Your task to perform on an android device: Clear the shopping cart on bestbuy. Search for sony triple a on bestbuy, select the first entry, add it to the cart, then select checkout. Image 0: 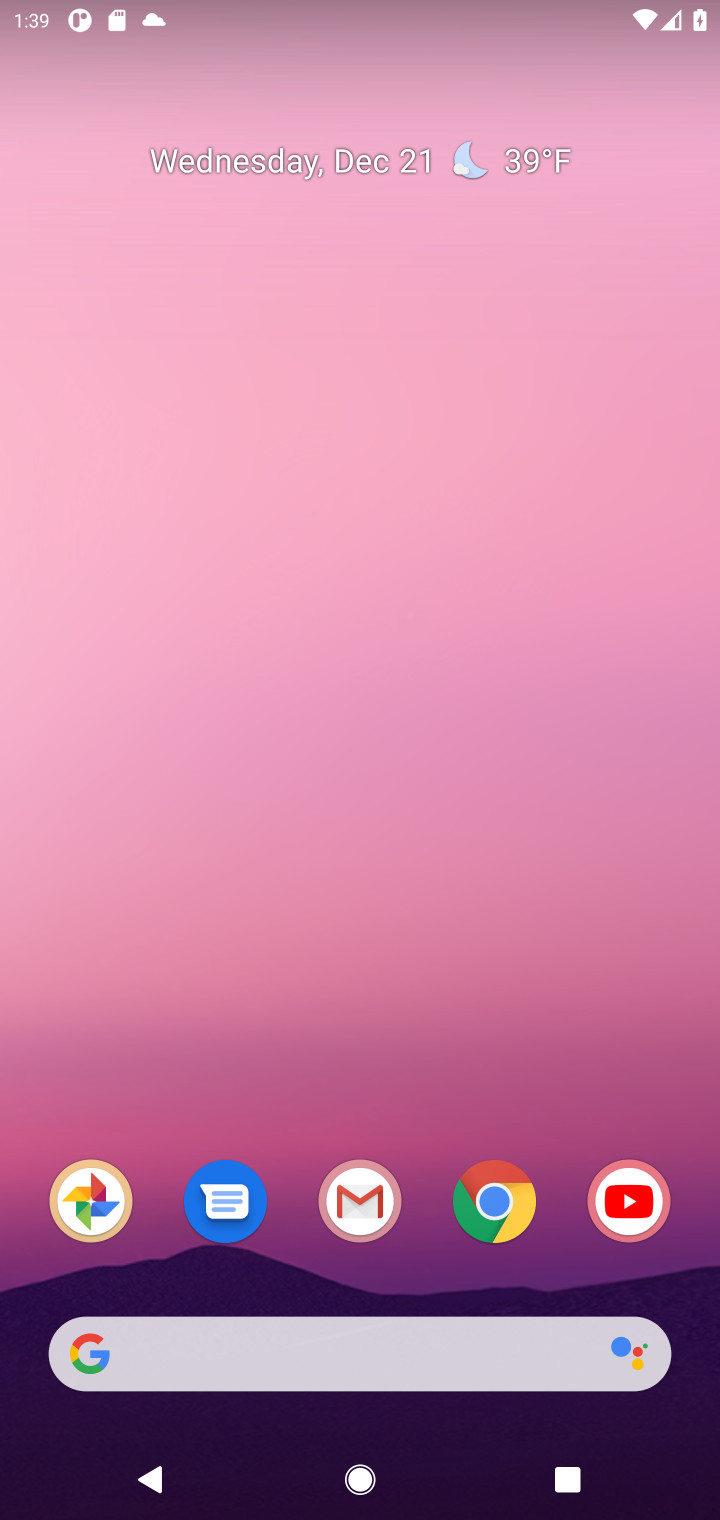
Step 0: click (507, 1216)
Your task to perform on an android device: Clear the shopping cart on bestbuy. Search for sony triple a on bestbuy, select the first entry, add it to the cart, then select checkout. Image 1: 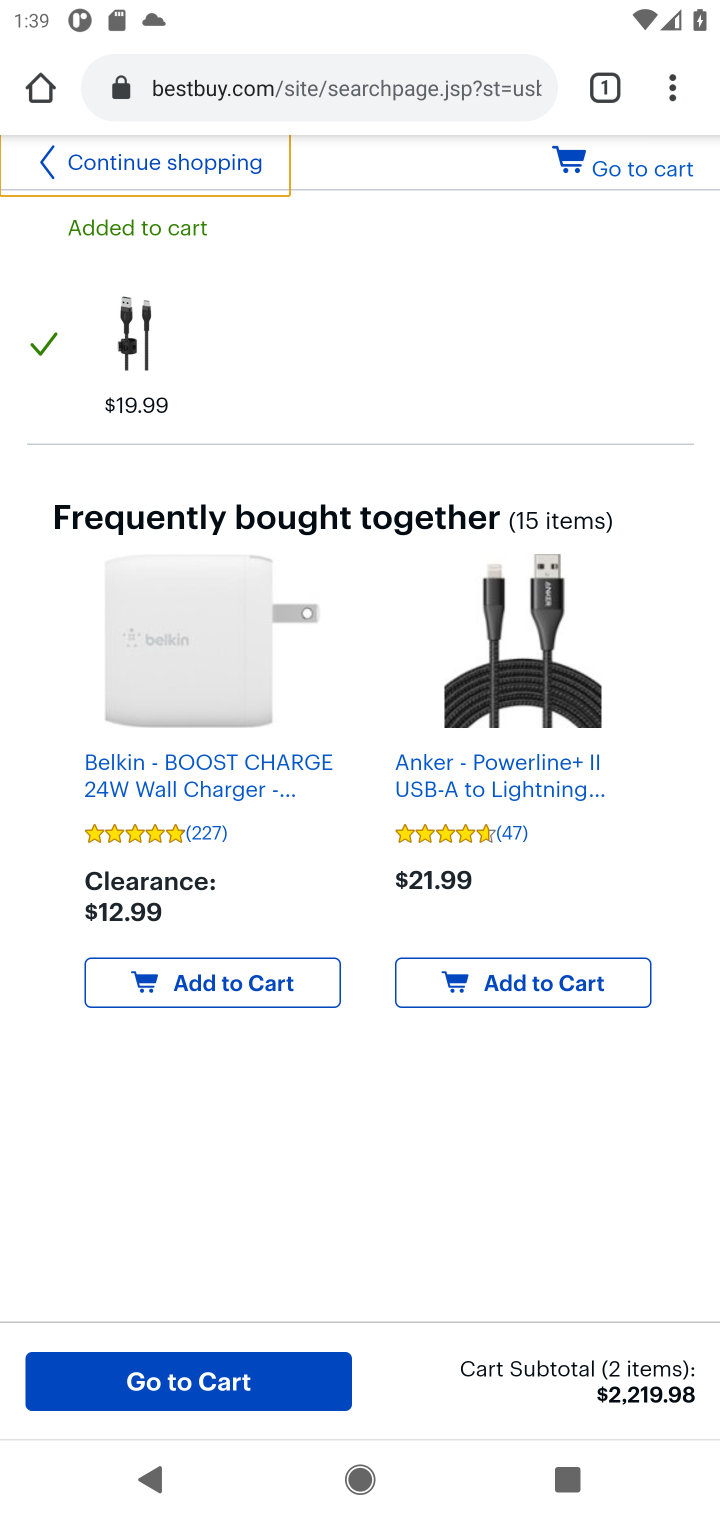
Step 1: press back button
Your task to perform on an android device: Clear the shopping cart on bestbuy. Search for sony triple a on bestbuy, select the first entry, add it to the cart, then select checkout. Image 2: 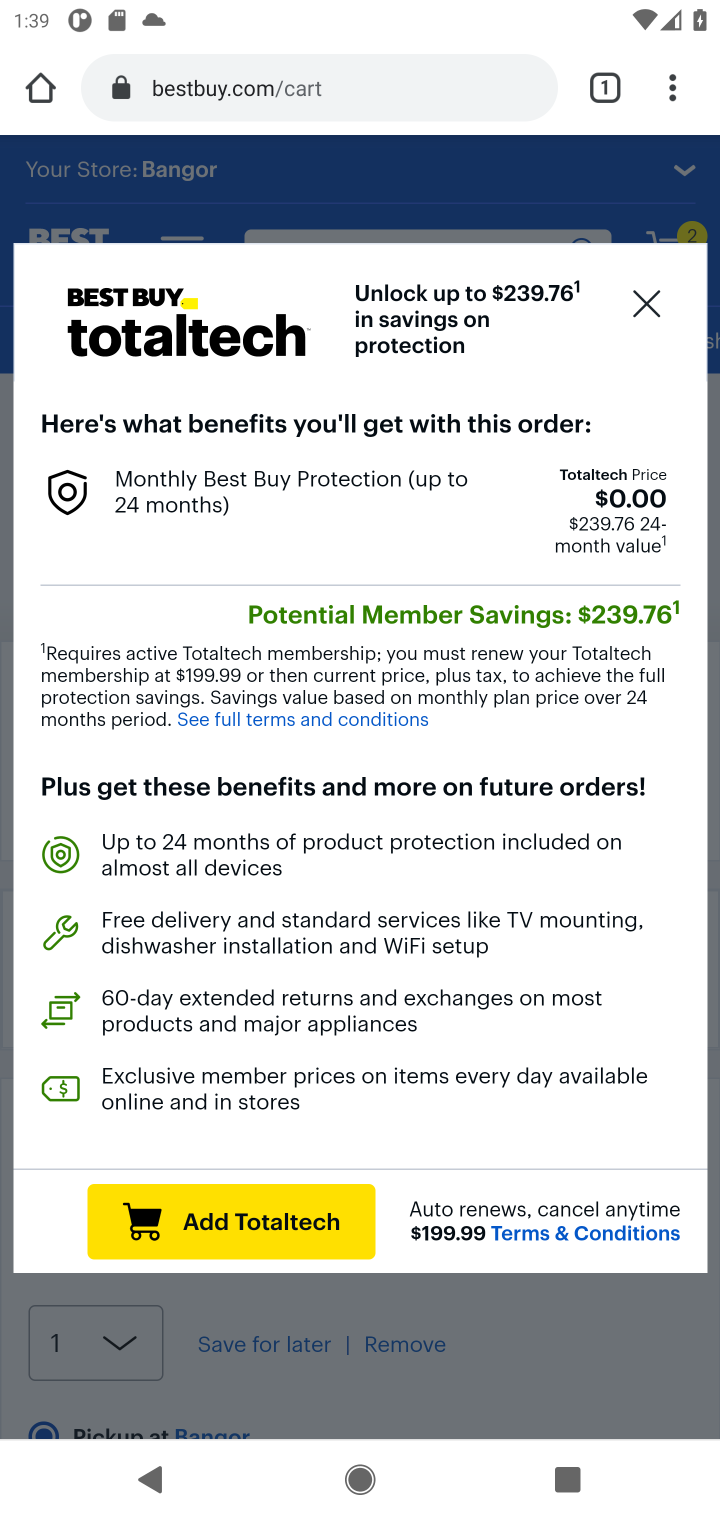
Step 2: click (645, 307)
Your task to perform on an android device: Clear the shopping cart on bestbuy. Search for sony triple a on bestbuy, select the first entry, add it to the cart, then select checkout. Image 3: 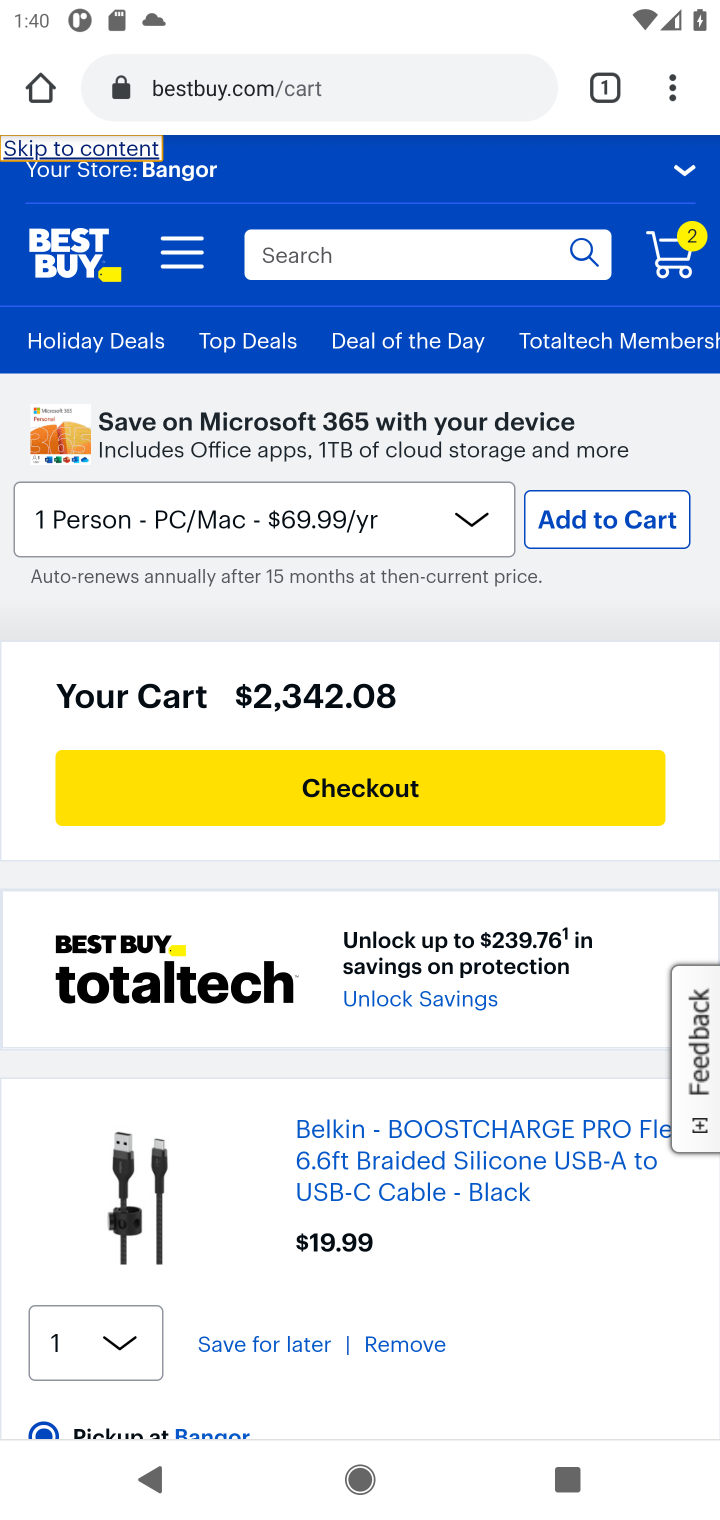
Step 3: drag from (263, 917) to (279, 531)
Your task to perform on an android device: Clear the shopping cart on bestbuy. Search for sony triple a on bestbuy, select the first entry, add it to the cart, then select checkout. Image 4: 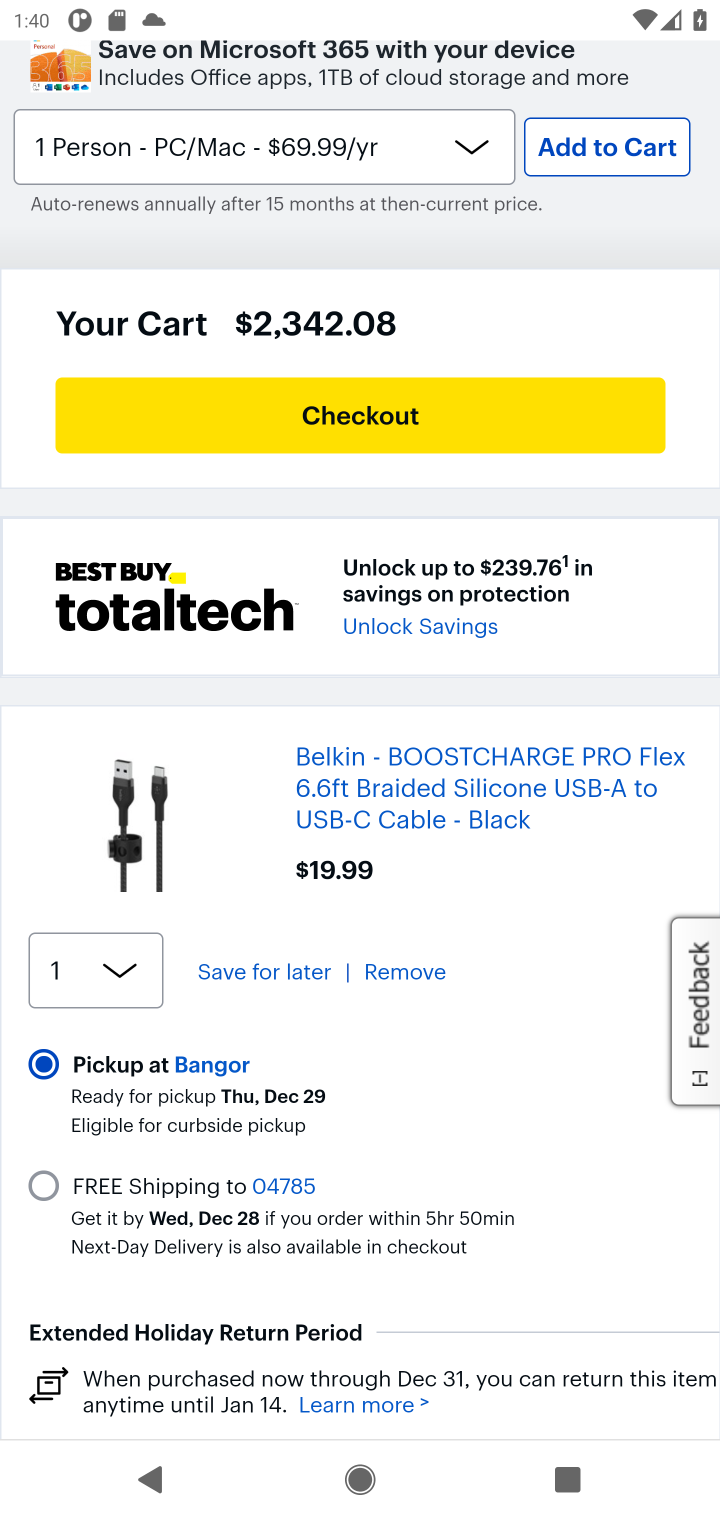
Step 4: click (392, 975)
Your task to perform on an android device: Clear the shopping cart on bestbuy. Search for sony triple a on bestbuy, select the first entry, add it to the cart, then select checkout. Image 5: 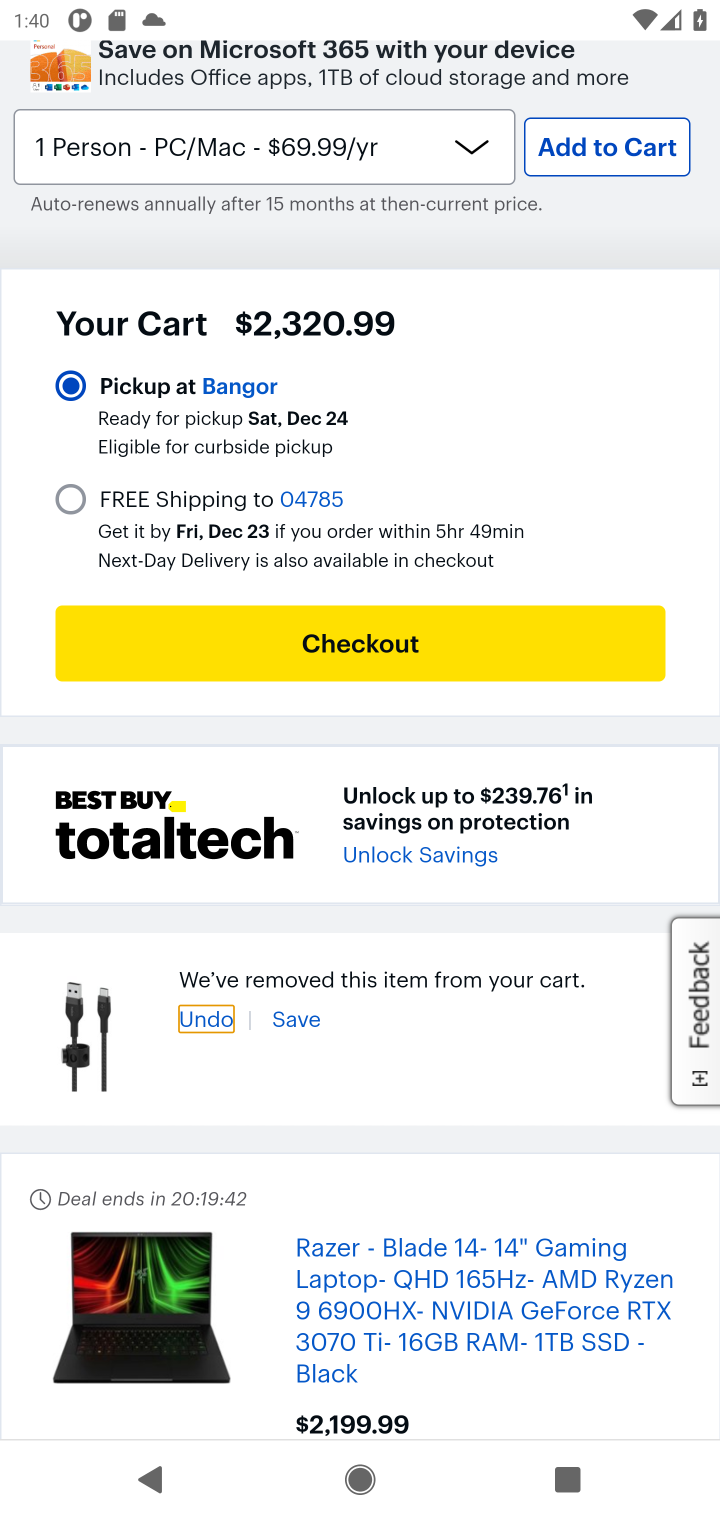
Step 5: drag from (375, 1029) to (364, 500)
Your task to perform on an android device: Clear the shopping cart on bestbuy. Search for sony triple a on bestbuy, select the first entry, add it to the cart, then select checkout. Image 6: 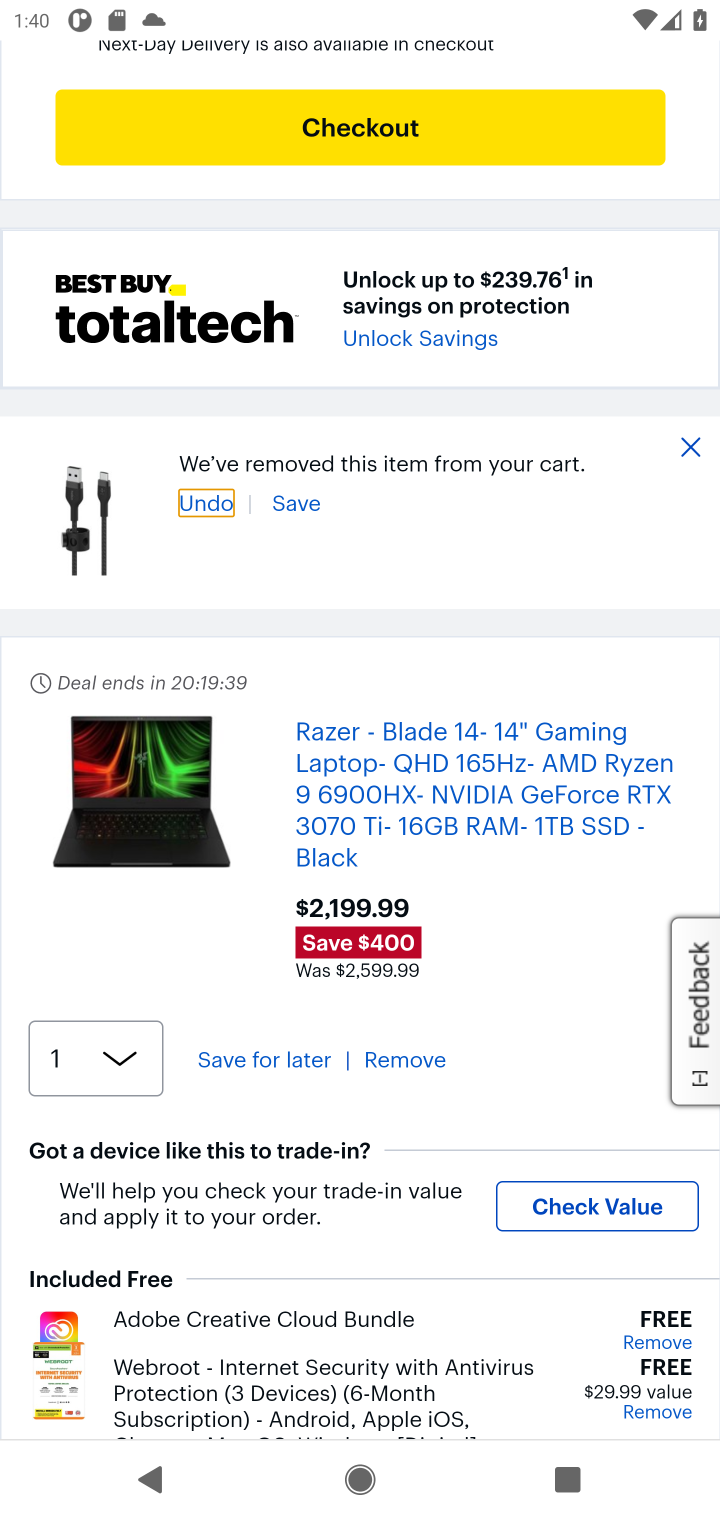
Step 6: click (381, 1058)
Your task to perform on an android device: Clear the shopping cart on bestbuy. Search for sony triple a on bestbuy, select the first entry, add it to the cart, then select checkout. Image 7: 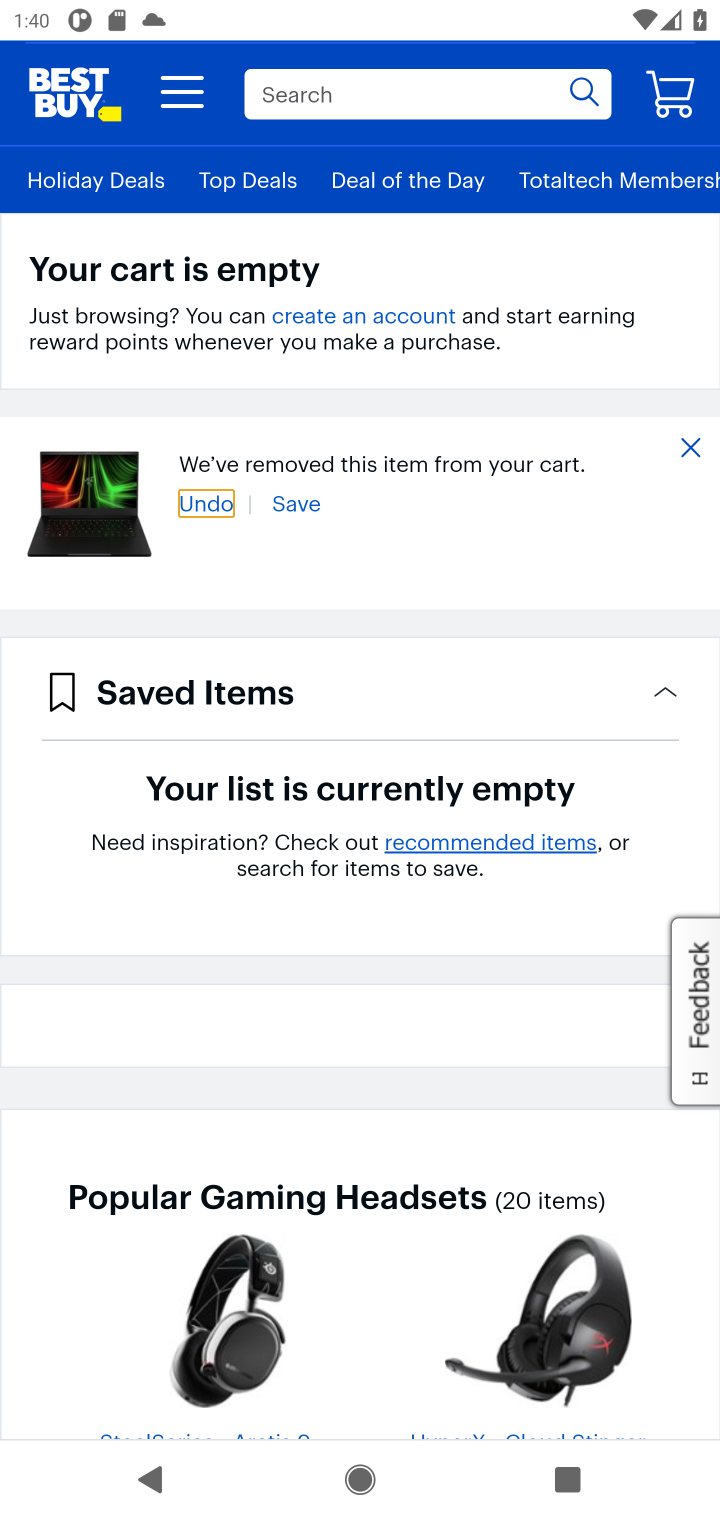
Step 7: click (327, 108)
Your task to perform on an android device: Clear the shopping cart on bestbuy. Search for sony triple a on bestbuy, select the first entry, add it to the cart, then select checkout. Image 8: 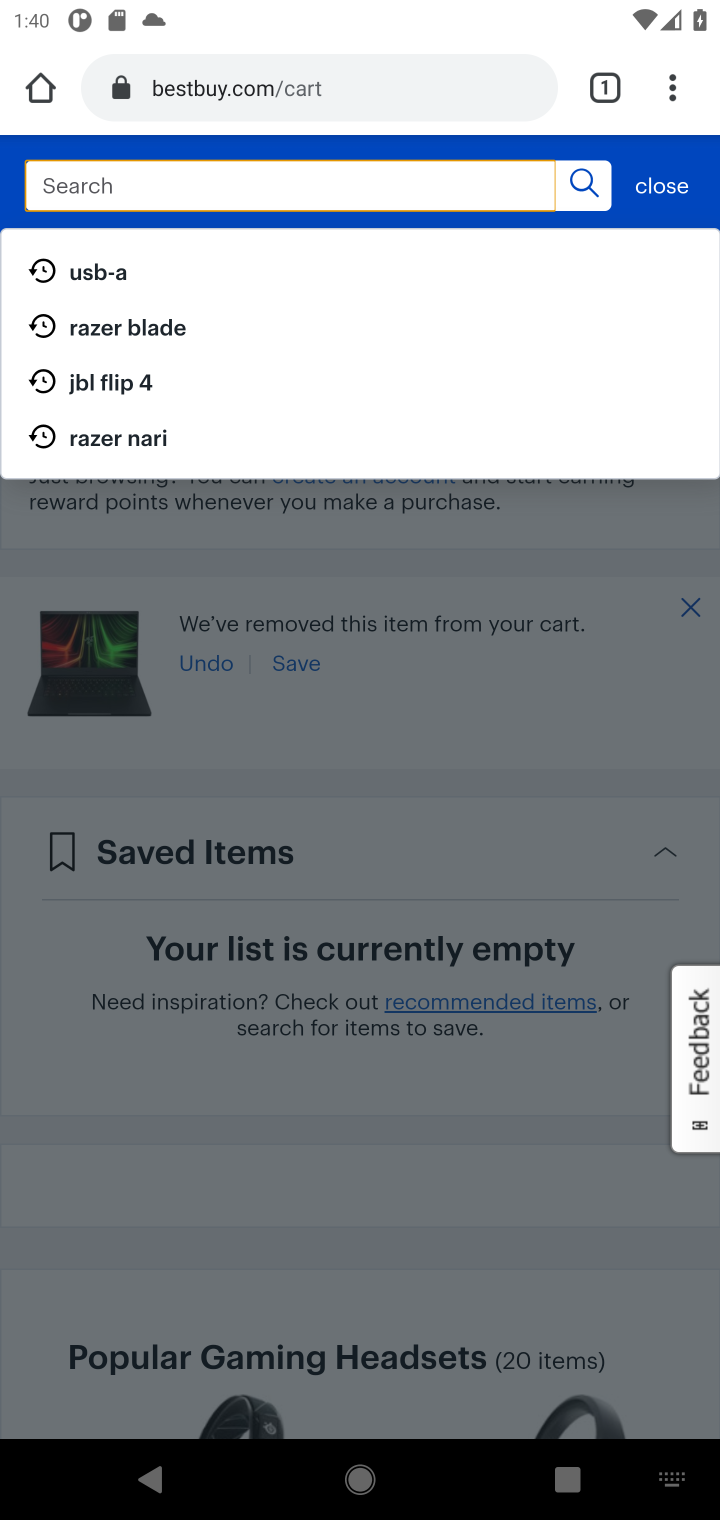
Step 8: type "sony triple a "
Your task to perform on an android device: Clear the shopping cart on bestbuy. Search for sony triple a on bestbuy, select the first entry, add it to the cart, then select checkout. Image 9: 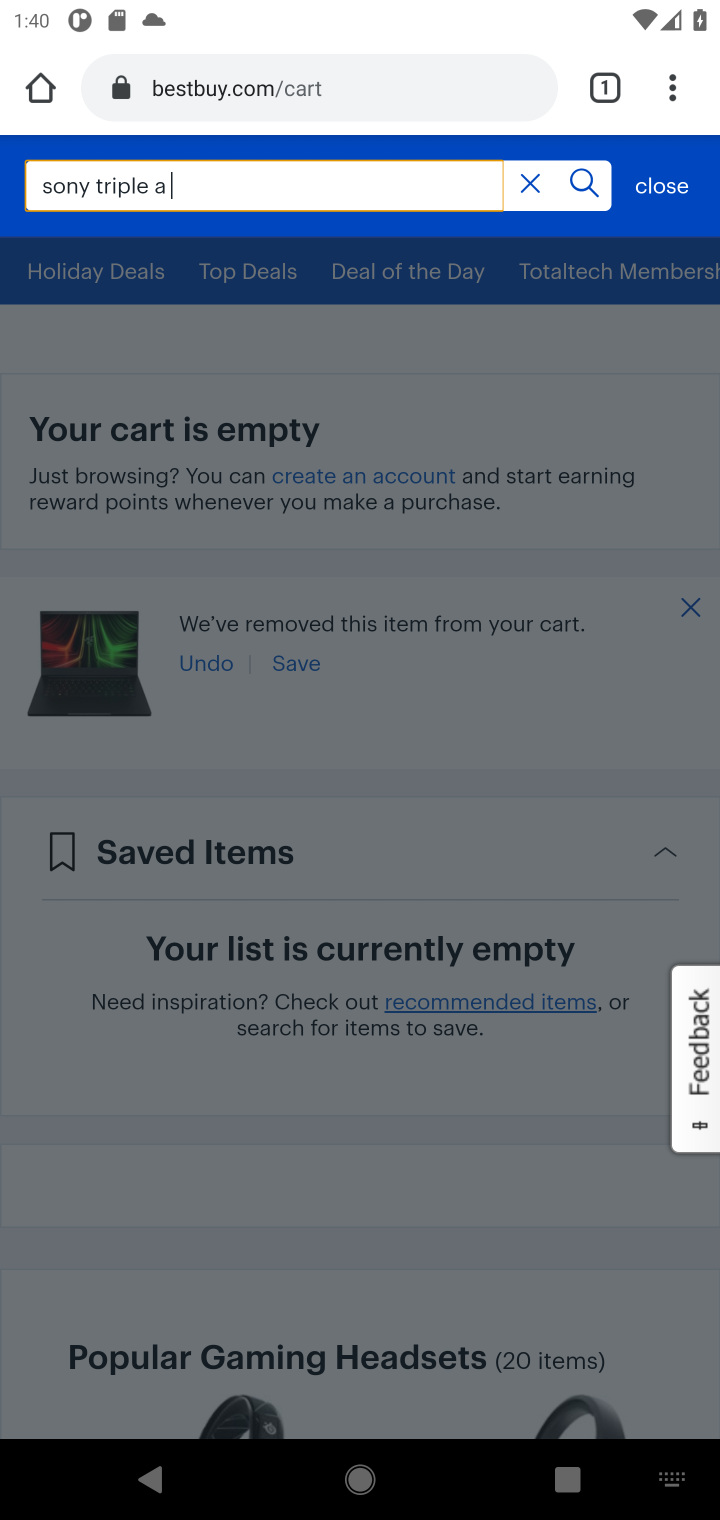
Step 9: click (579, 178)
Your task to perform on an android device: Clear the shopping cart on bestbuy. Search for sony triple a on bestbuy, select the first entry, add it to the cart, then select checkout. Image 10: 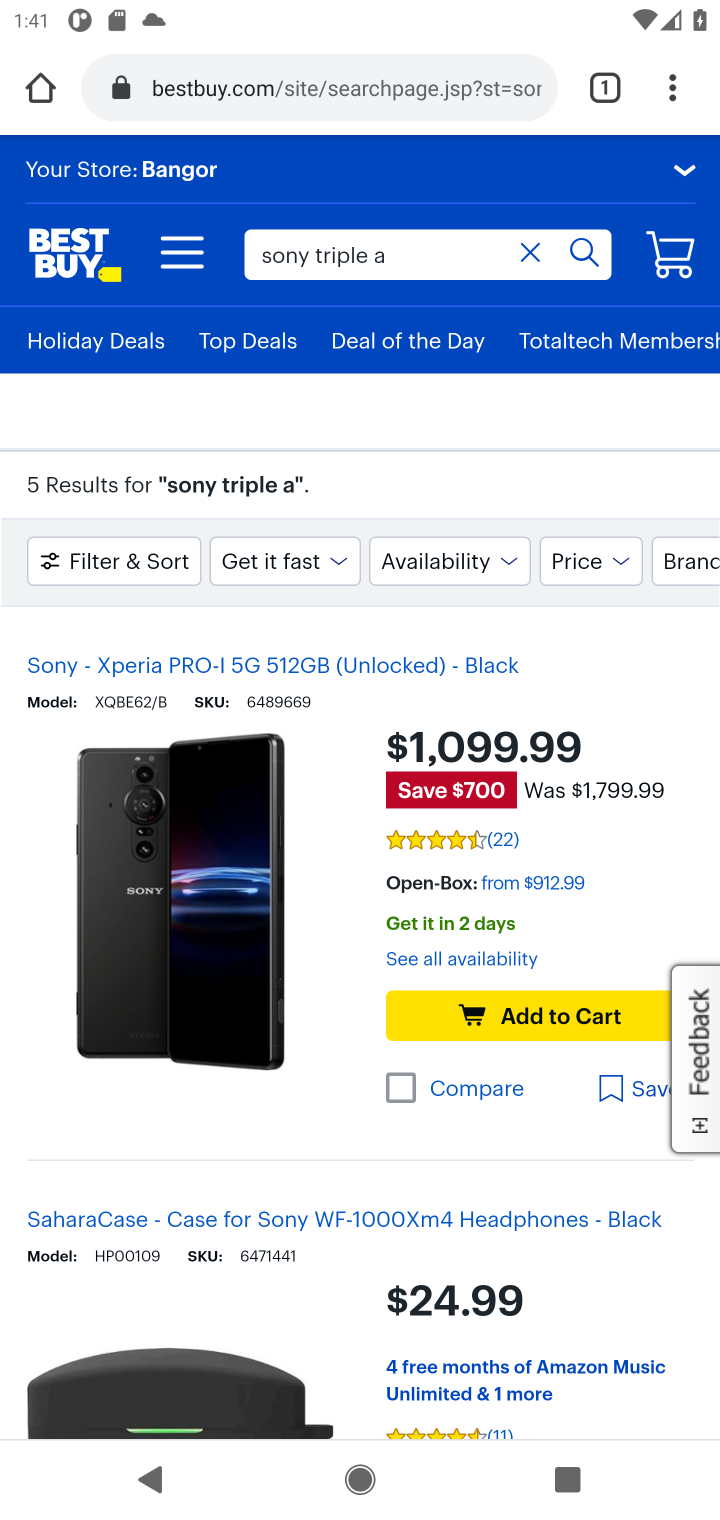
Step 10: task complete